Your task to perform on an android device: install app "Gmail" Image 0: 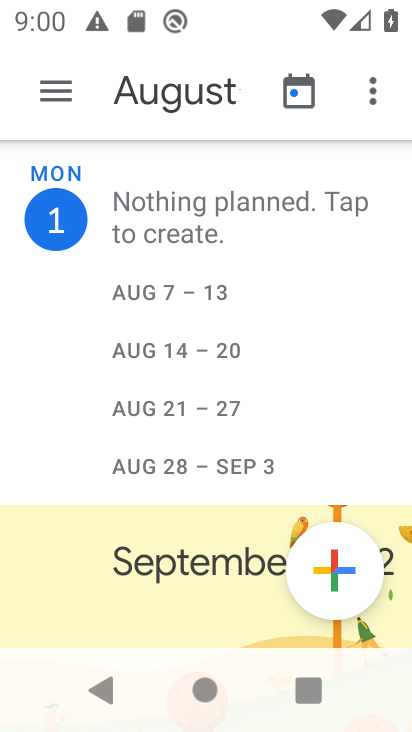
Step 0: press home button
Your task to perform on an android device: install app "Gmail" Image 1: 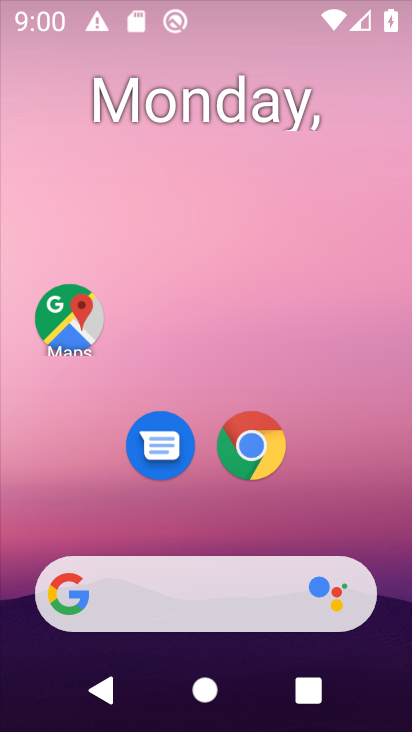
Step 1: drag from (383, 585) to (256, 60)
Your task to perform on an android device: install app "Gmail" Image 2: 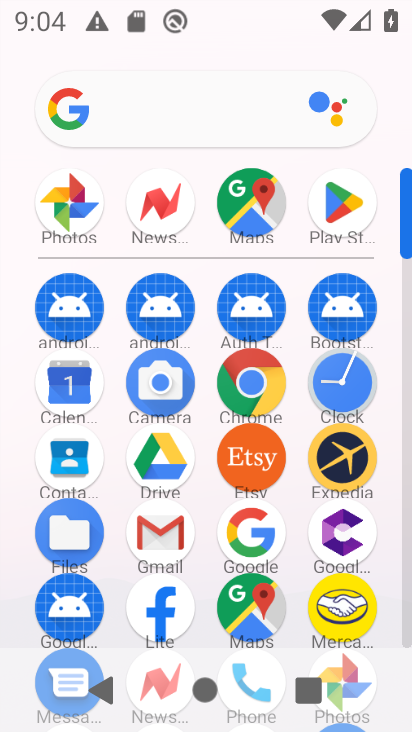
Step 2: click (344, 221)
Your task to perform on an android device: install app "Gmail" Image 3: 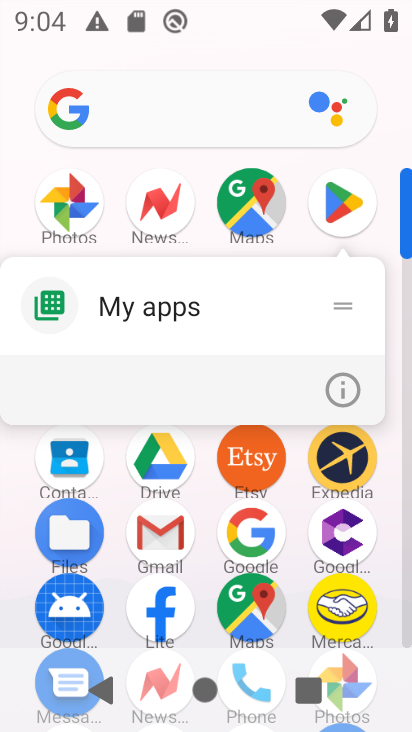
Step 3: click (344, 221)
Your task to perform on an android device: install app "Gmail" Image 4: 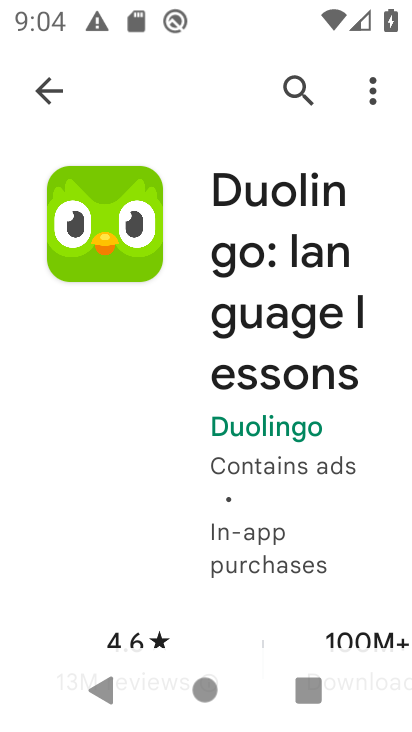
Step 4: press back button
Your task to perform on an android device: install app "Gmail" Image 5: 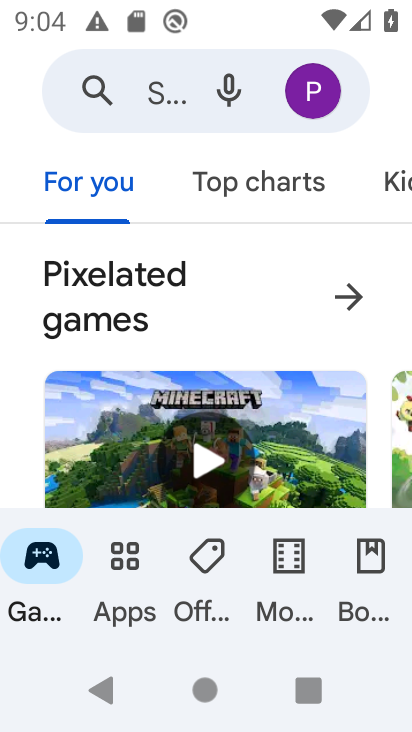
Step 5: click (176, 92)
Your task to perform on an android device: install app "Gmail" Image 6: 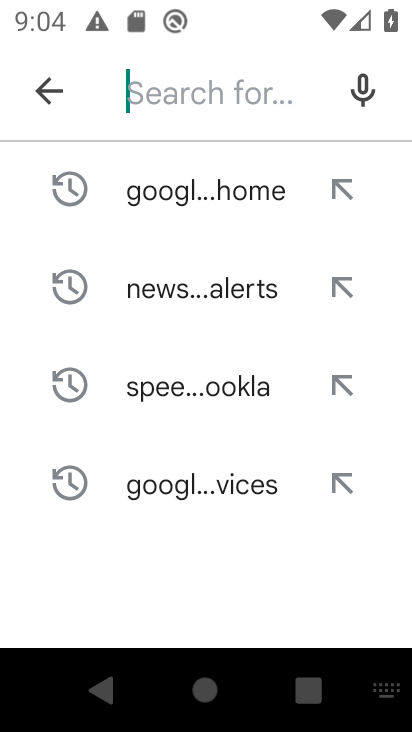
Step 6: type "Gmail"
Your task to perform on an android device: install app "Gmail" Image 7: 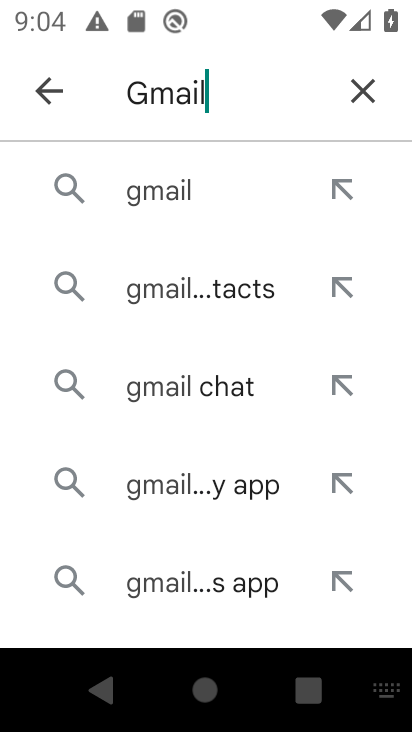
Step 7: click (190, 201)
Your task to perform on an android device: install app "Gmail" Image 8: 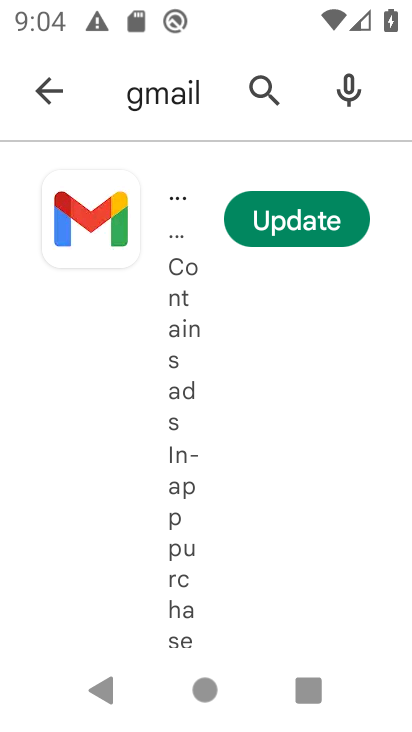
Step 8: click (295, 208)
Your task to perform on an android device: install app "Gmail" Image 9: 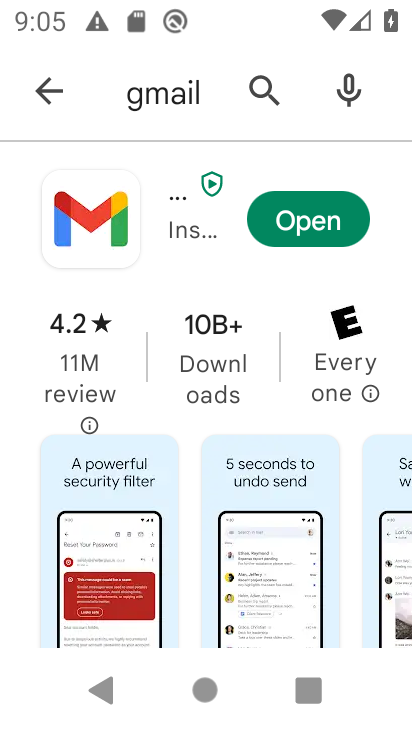
Step 9: task complete